Your task to perform on an android device: read, delete, or share a saved page in the chrome app Image 0: 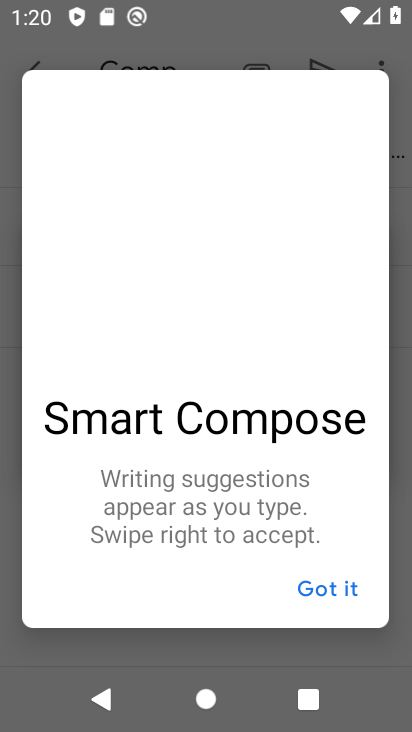
Step 0: press home button
Your task to perform on an android device: read, delete, or share a saved page in the chrome app Image 1: 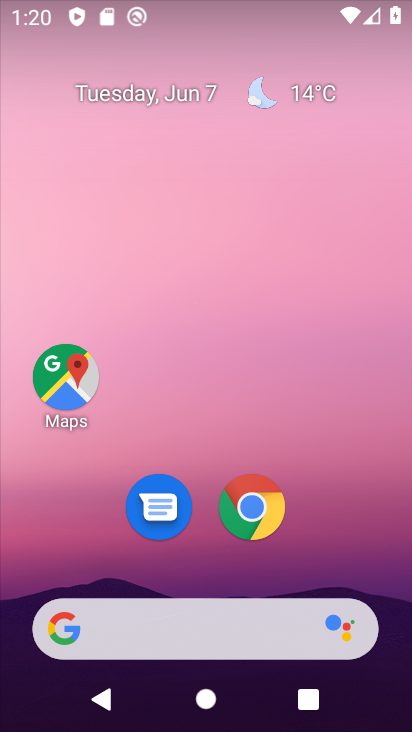
Step 1: click (254, 515)
Your task to perform on an android device: read, delete, or share a saved page in the chrome app Image 2: 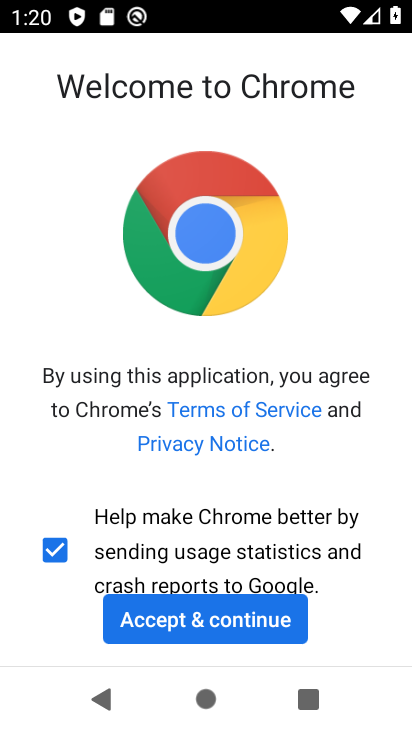
Step 2: click (209, 625)
Your task to perform on an android device: read, delete, or share a saved page in the chrome app Image 3: 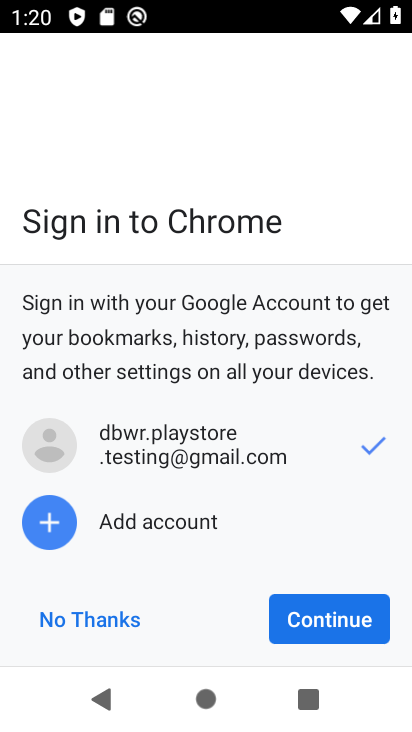
Step 3: click (328, 615)
Your task to perform on an android device: read, delete, or share a saved page in the chrome app Image 4: 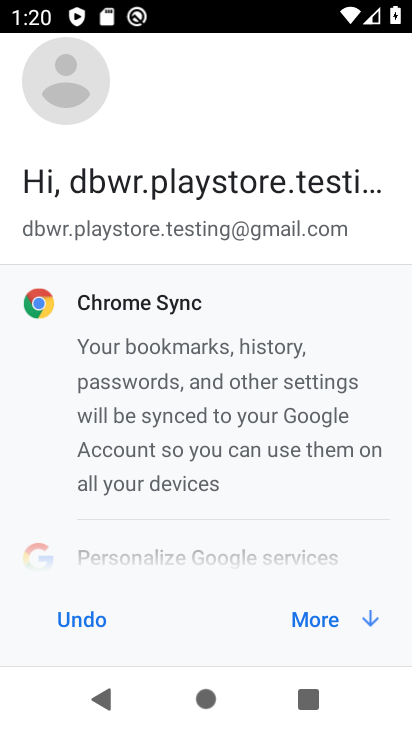
Step 4: click (365, 636)
Your task to perform on an android device: read, delete, or share a saved page in the chrome app Image 5: 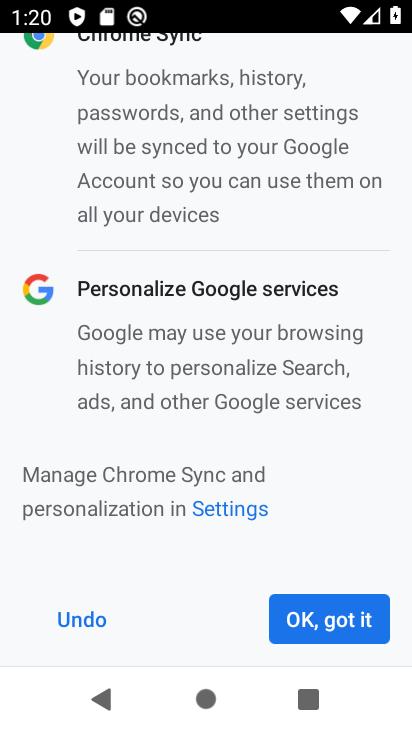
Step 5: click (366, 636)
Your task to perform on an android device: read, delete, or share a saved page in the chrome app Image 6: 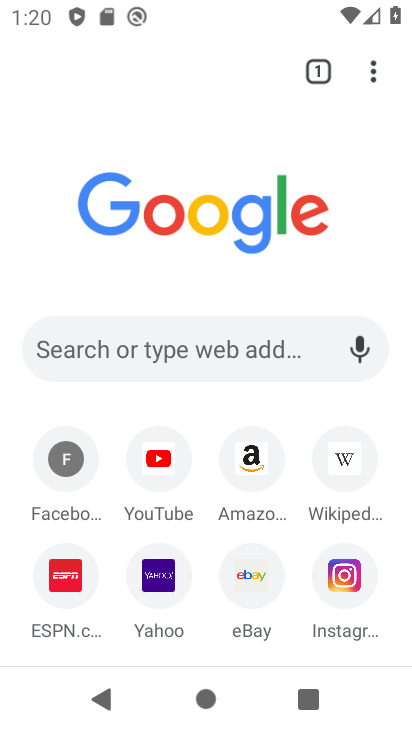
Step 6: click (373, 67)
Your task to perform on an android device: read, delete, or share a saved page in the chrome app Image 7: 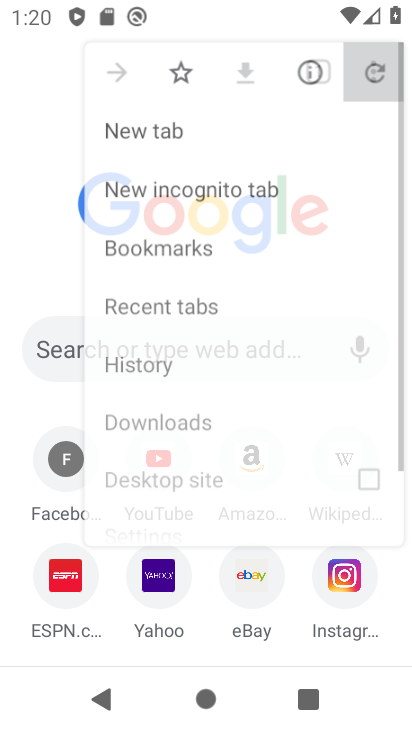
Step 7: click (379, 87)
Your task to perform on an android device: read, delete, or share a saved page in the chrome app Image 8: 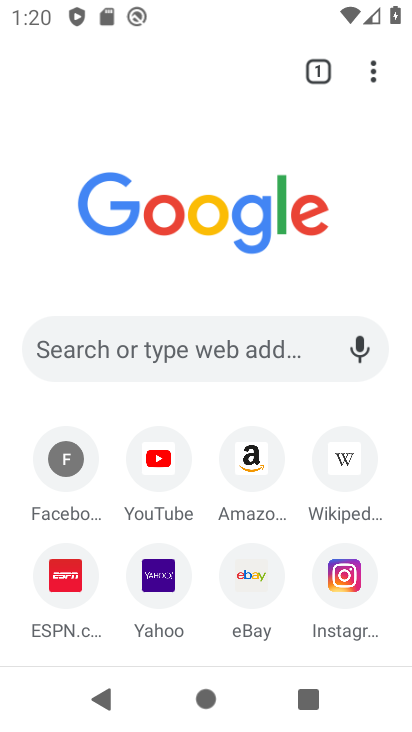
Step 8: drag from (380, 76) to (254, 371)
Your task to perform on an android device: read, delete, or share a saved page in the chrome app Image 9: 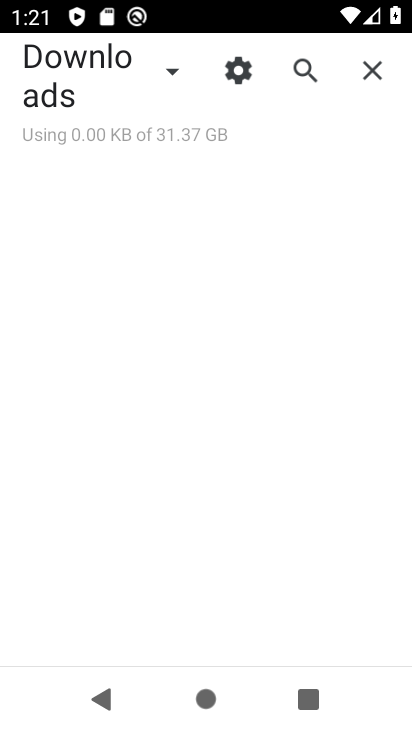
Step 9: click (131, 89)
Your task to perform on an android device: read, delete, or share a saved page in the chrome app Image 10: 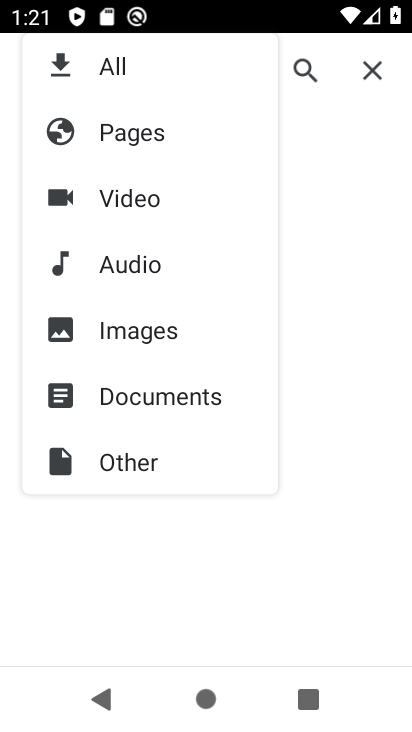
Step 10: click (167, 144)
Your task to perform on an android device: read, delete, or share a saved page in the chrome app Image 11: 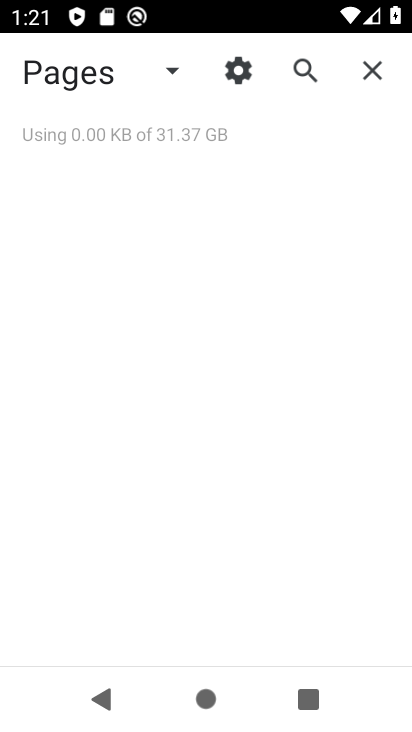
Step 11: task complete